Your task to perform on an android device: Show me recent news Image 0: 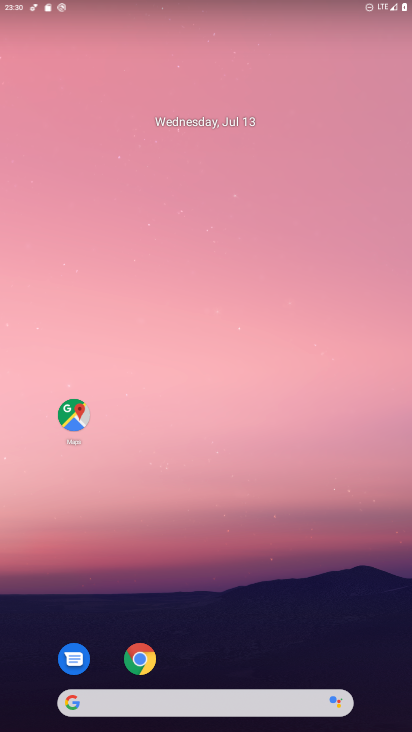
Step 0: drag from (7, 289) to (394, 327)
Your task to perform on an android device: Show me recent news Image 1: 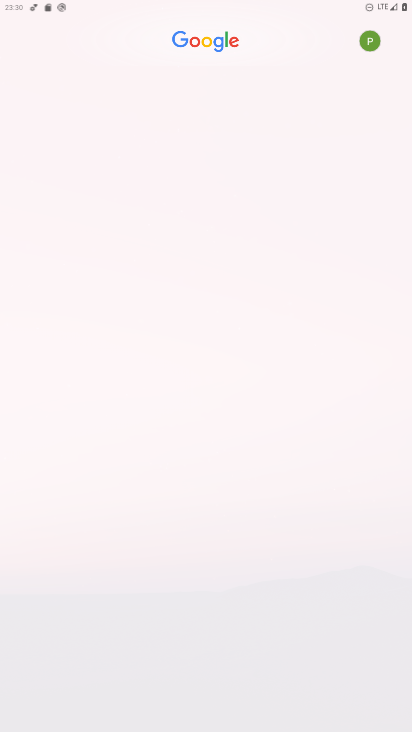
Step 1: task complete